Your task to perform on an android device: Open Reddit.com Image 0: 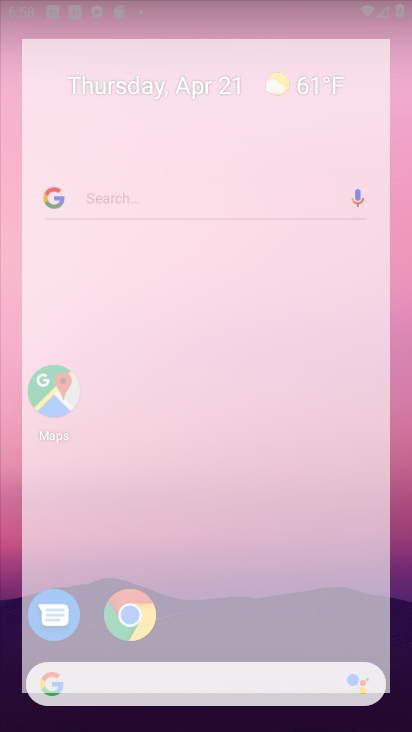
Step 0: drag from (201, 579) to (311, 108)
Your task to perform on an android device: Open Reddit.com Image 1: 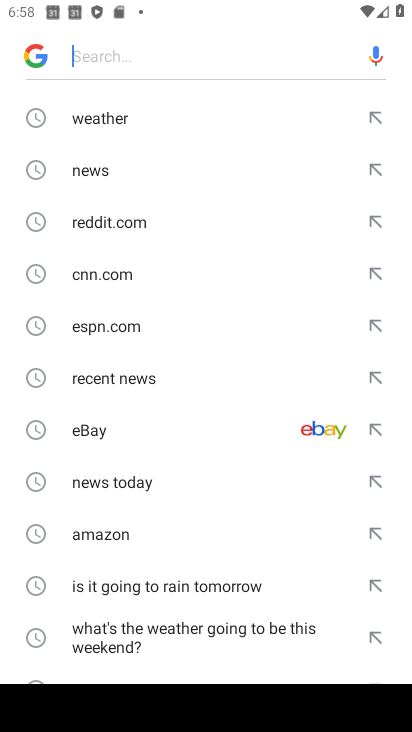
Step 1: click (136, 223)
Your task to perform on an android device: Open Reddit.com Image 2: 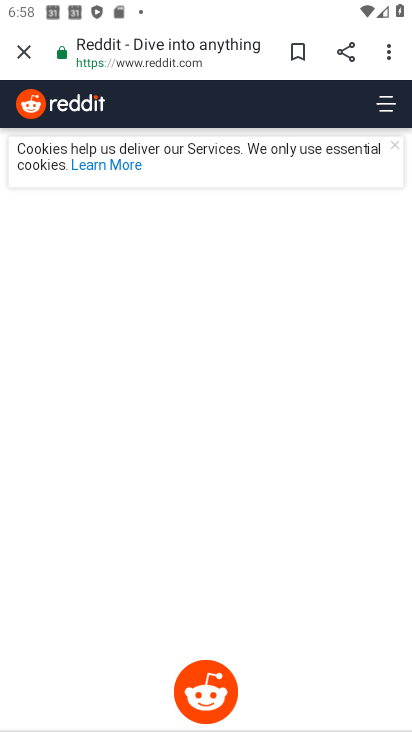
Step 2: task complete